Your task to perform on an android device: see tabs open on other devices in the chrome app Image 0: 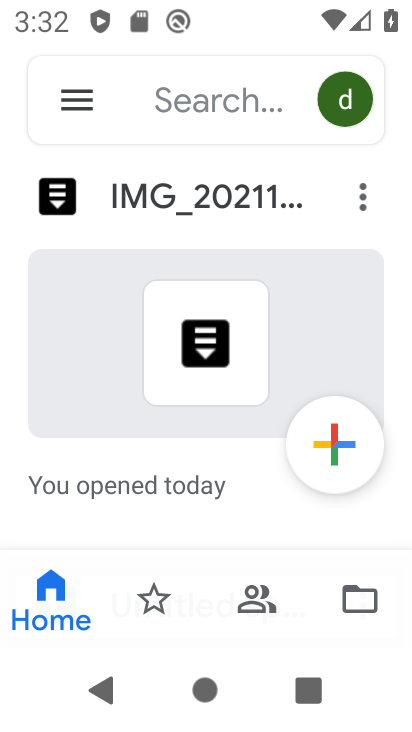
Step 0: press back button
Your task to perform on an android device: see tabs open on other devices in the chrome app Image 1: 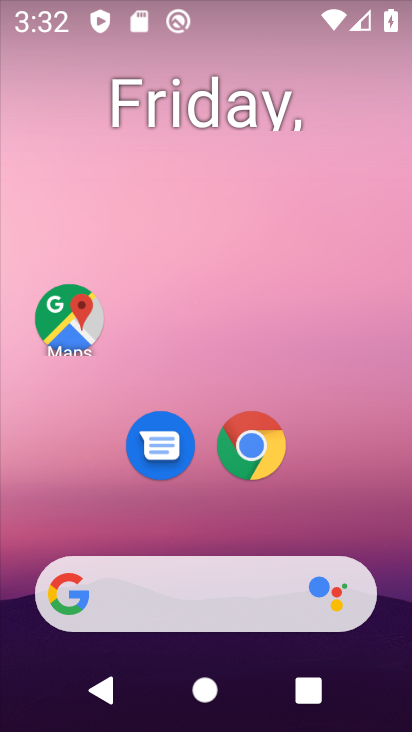
Step 1: drag from (373, 491) to (305, 41)
Your task to perform on an android device: see tabs open on other devices in the chrome app Image 2: 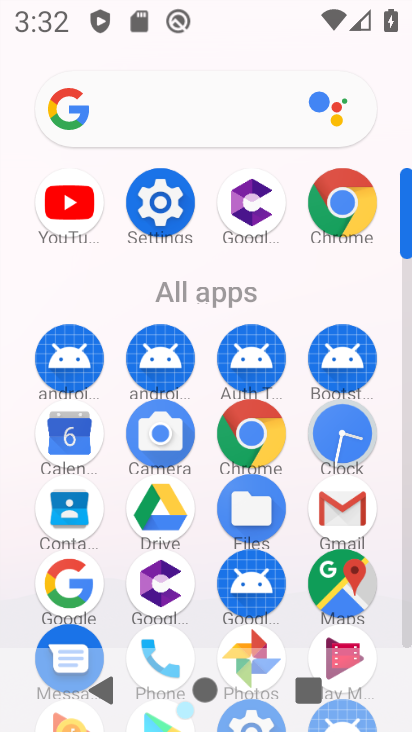
Step 2: drag from (20, 618) to (18, 260)
Your task to perform on an android device: see tabs open on other devices in the chrome app Image 3: 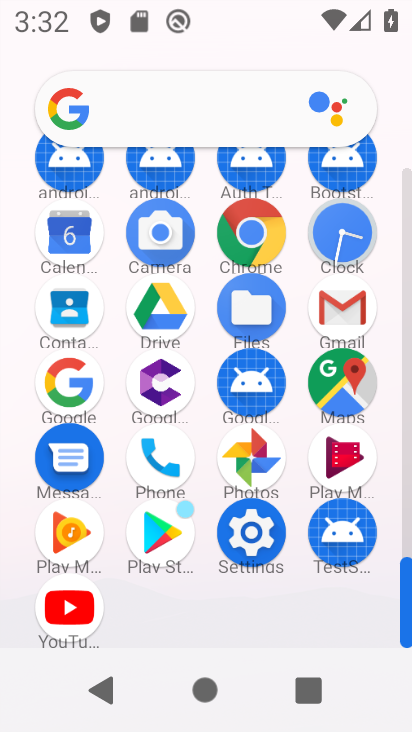
Step 3: click (250, 234)
Your task to perform on an android device: see tabs open on other devices in the chrome app Image 4: 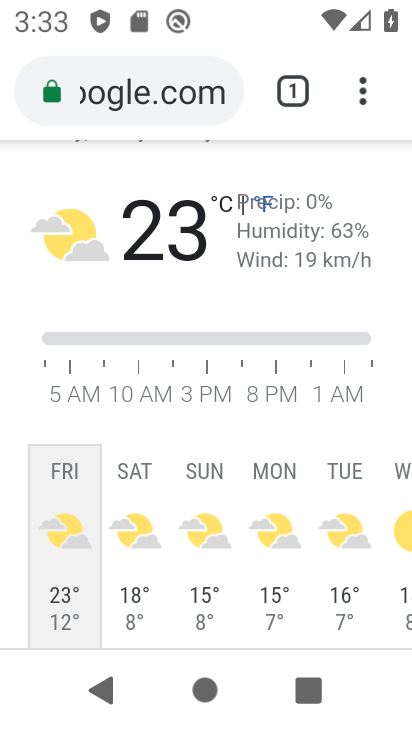
Step 4: task complete